Your task to perform on an android device: turn smart compose on in the gmail app Image 0: 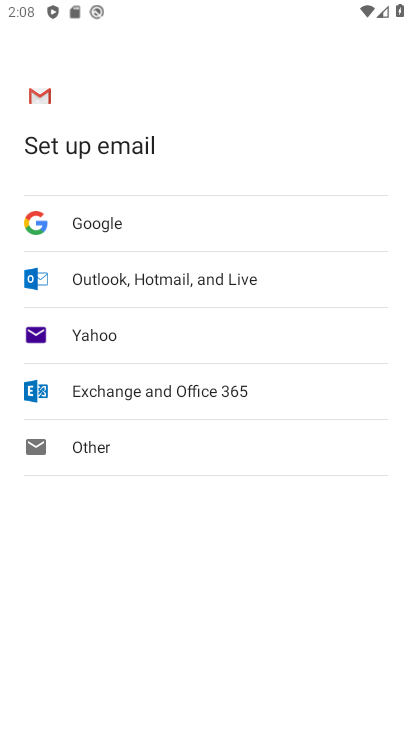
Step 0: press home button
Your task to perform on an android device: turn smart compose on in the gmail app Image 1: 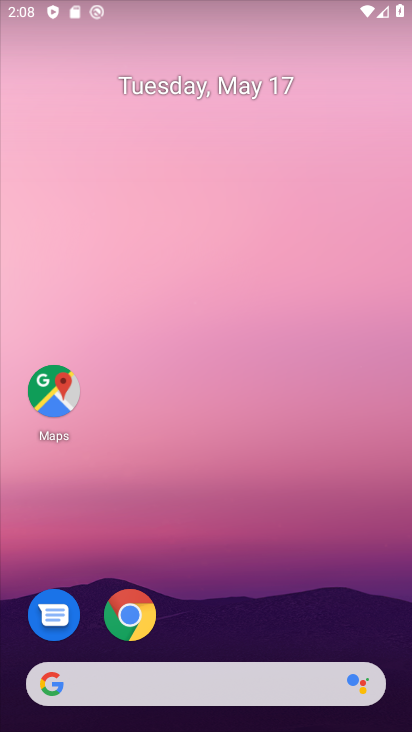
Step 1: drag from (229, 724) to (189, 12)
Your task to perform on an android device: turn smart compose on in the gmail app Image 2: 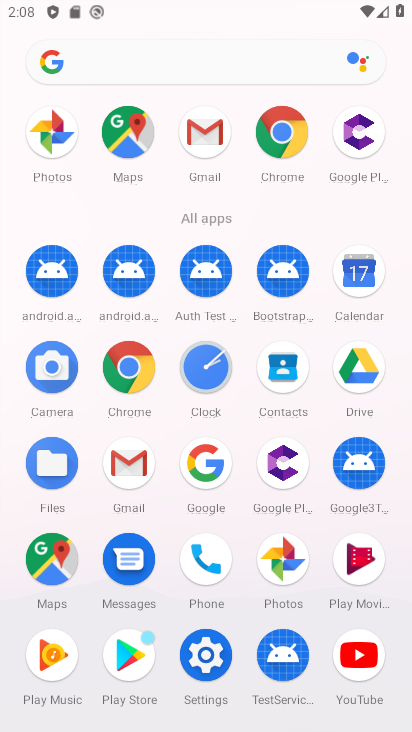
Step 2: click (127, 454)
Your task to perform on an android device: turn smart compose on in the gmail app Image 3: 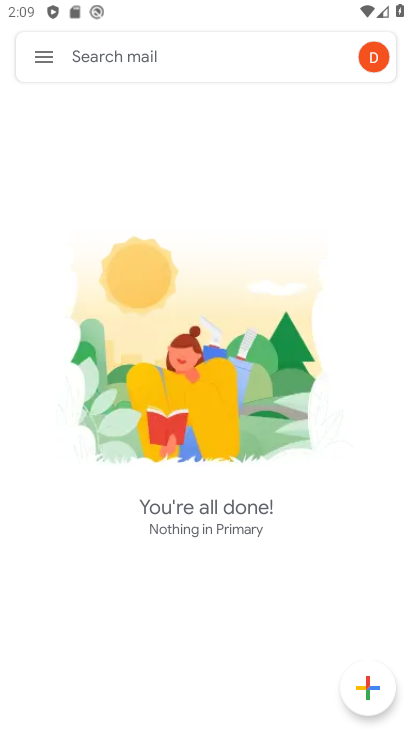
Step 3: click (40, 52)
Your task to perform on an android device: turn smart compose on in the gmail app Image 4: 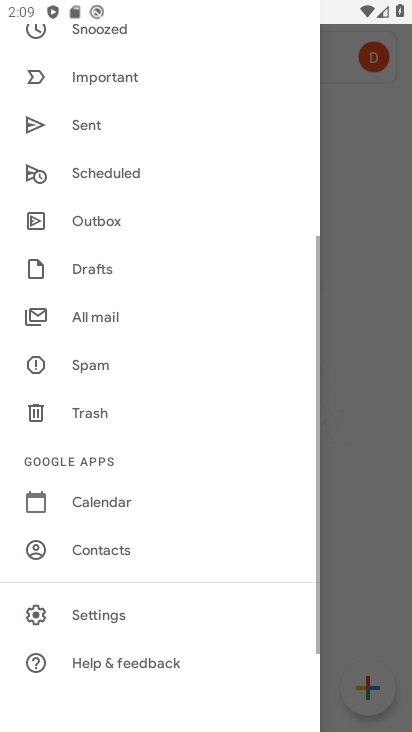
Step 4: click (120, 615)
Your task to perform on an android device: turn smart compose on in the gmail app Image 5: 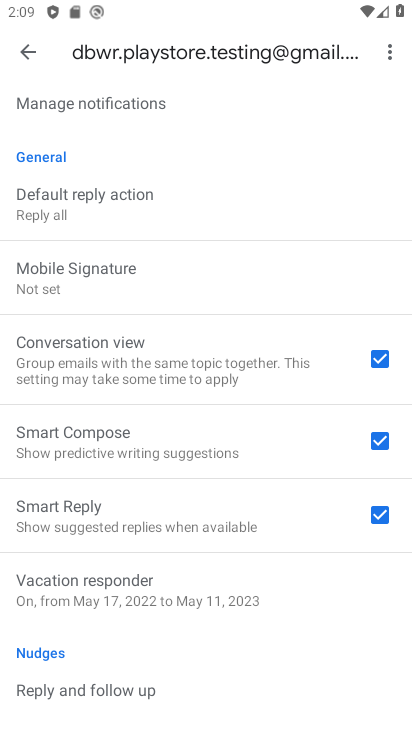
Step 5: task complete